Your task to perform on an android device: turn off location history Image 0: 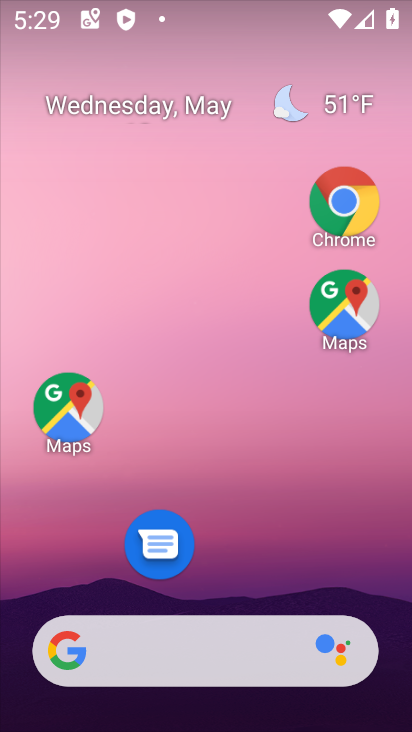
Step 0: drag from (274, 548) to (306, 141)
Your task to perform on an android device: turn off location history Image 1: 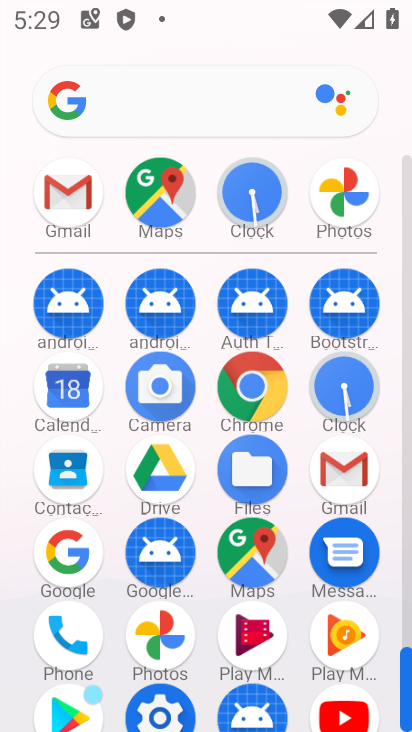
Step 1: click (159, 712)
Your task to perform on an android device: turn off location history Image 2: 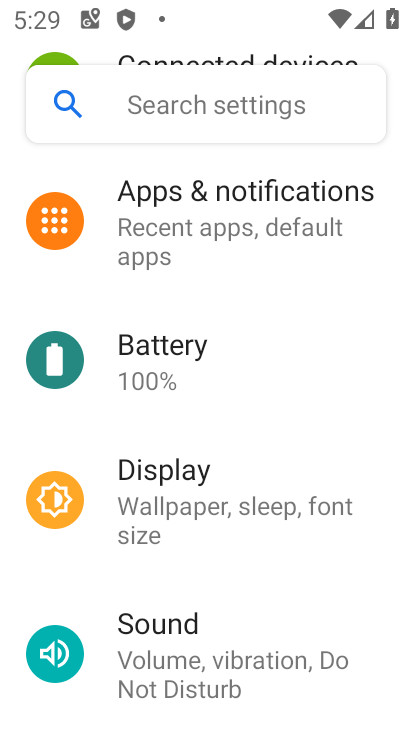
Step 2: drag from (222, 313) to (232, 547)
Your task to perform on an android device: turn off location history Image 3: 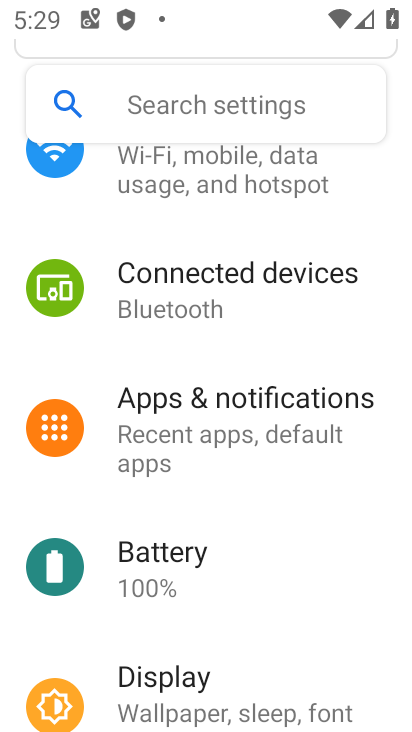
Step 3: drag from (223, 351) to (221, 564)
Your task to perform on an android device: turn off location history Image 4: 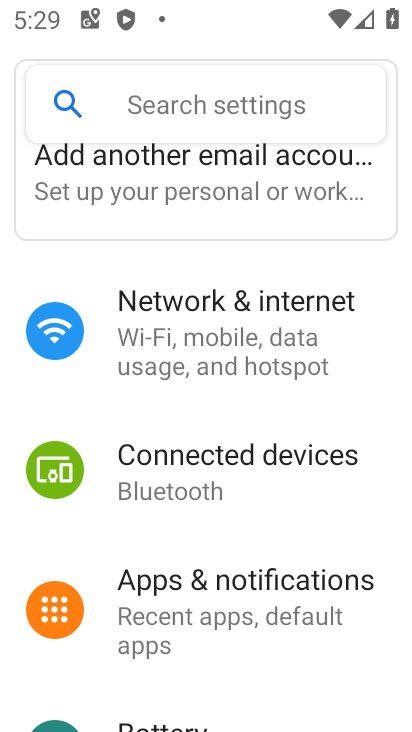
Step 4: drag from (207, 606) to (207, 252)
Your task to perform on an android device: turn off location history Image 5: 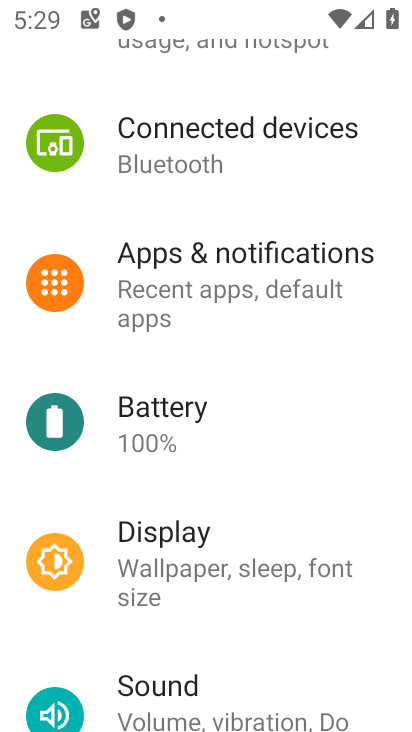
Step 5: drag from (195, 593) to (205, 189)
Your task to perform on an android device: turn off location history Image 6: 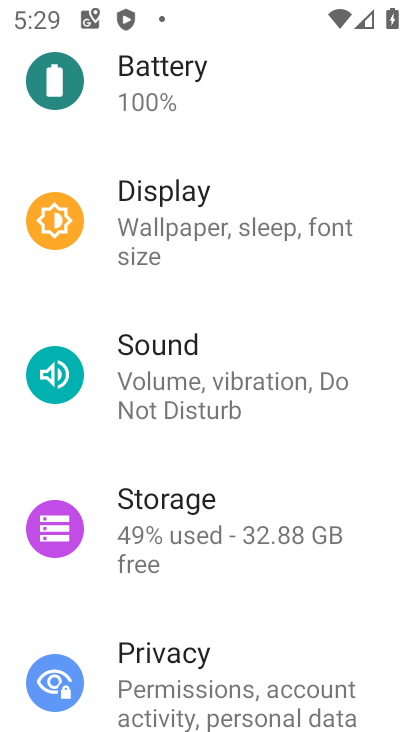
Step 6: drag from (180, 579) to (184, 288)
Your task to perform on an android device: turn off location history Image 7: 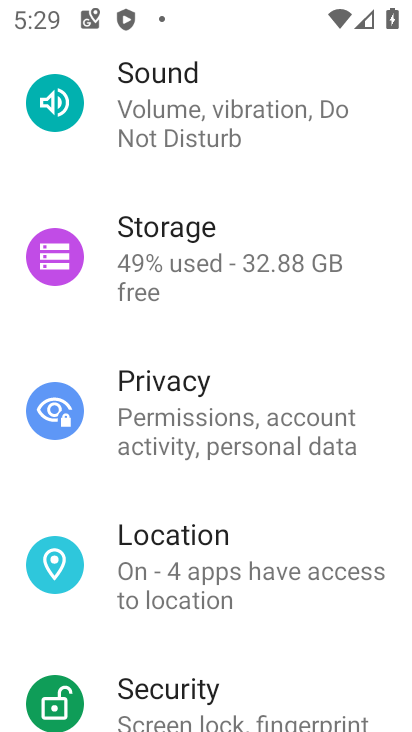
Step 7: drag from (210, 633) to (216, 261)
Your task to perform on an android device: turn off location history Image 8: 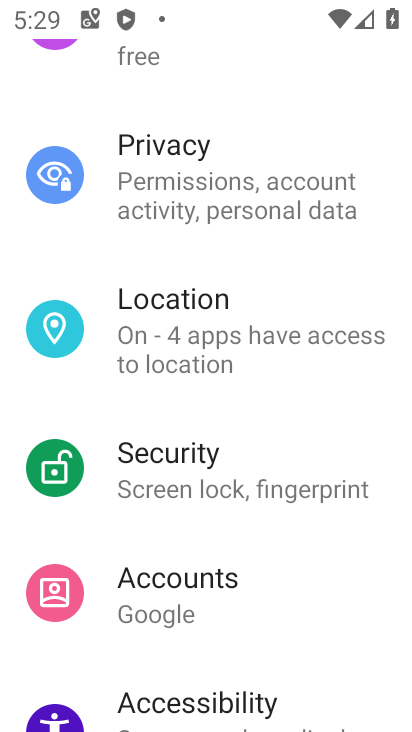
Step 8: click (155, 324)
Your task to perform on an android device: turn off location history Image 9: 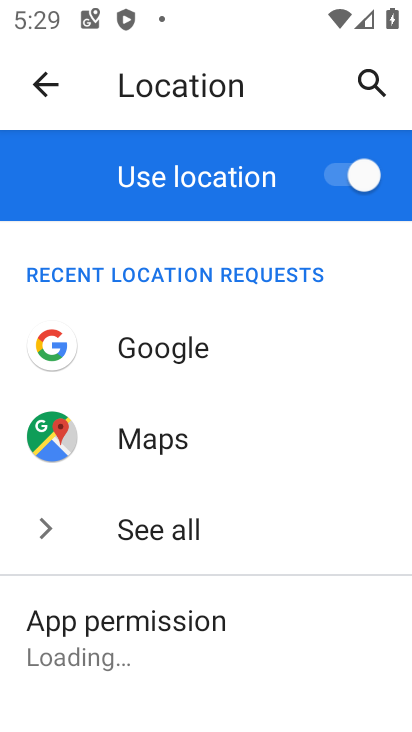
Step 9: drag from (159, 638) to (193, 308)
Your task to perform on an android device: turn off location history Image 10: 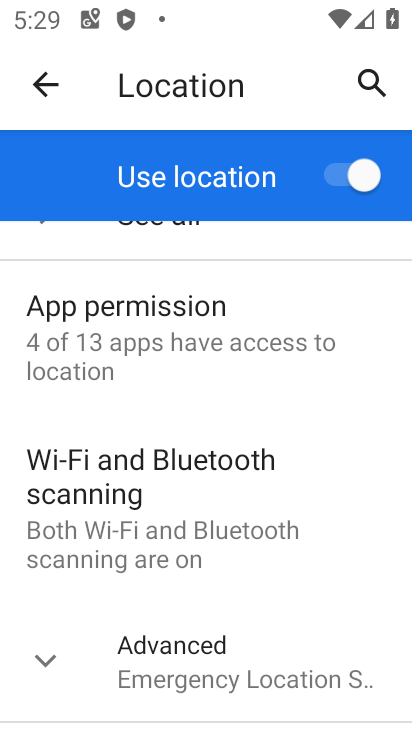
Step 10: click (167, 670)
Your task to perform on an android device: turn off location history Image 11: 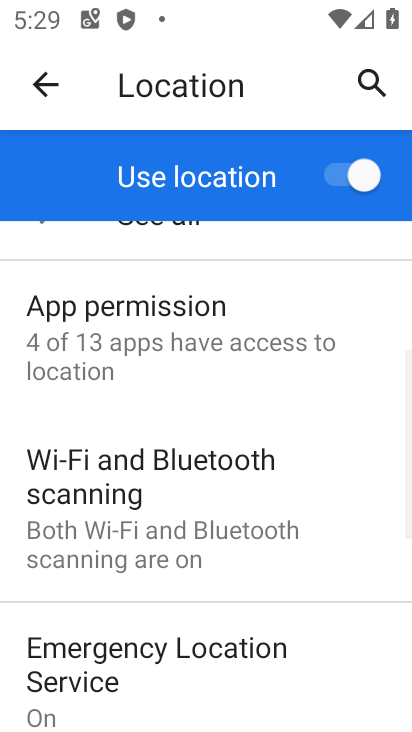
Step 11: drag from (161, 687) to (234, 250)
Your task to perform on an android device: turn off location history Image 12: 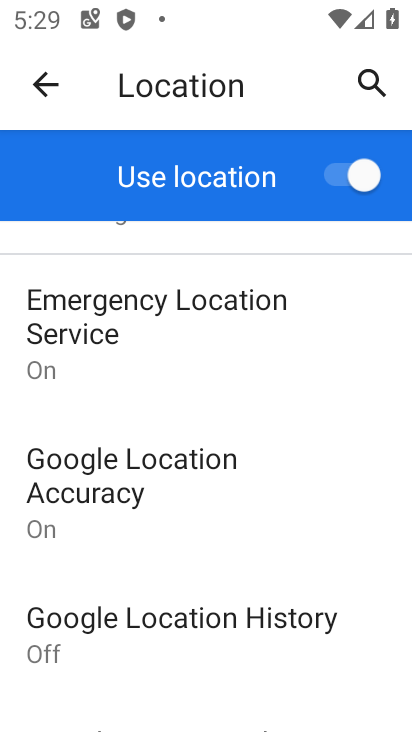
Step 12: click (183, 638)
Your task to perform on an android device: turn off location history Image 13: 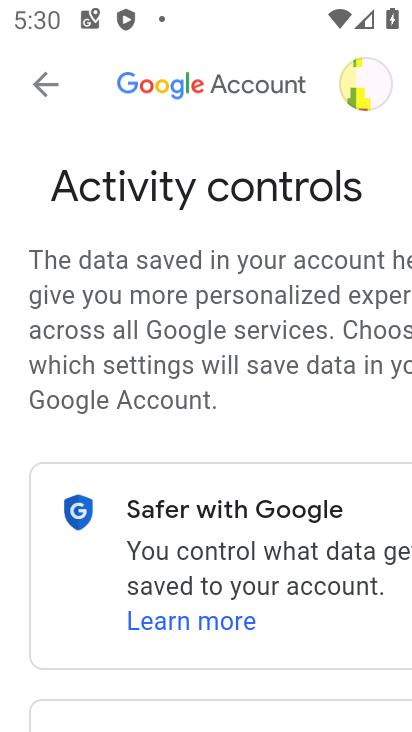
Step 13: drag from (242, 566) to (225, 208)
Your task to perform on an android device: turn off location history Image 14: 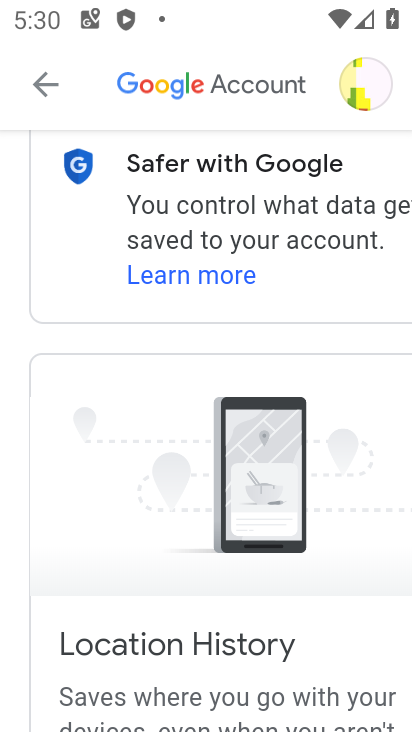
Step 14: drag from (240, 423) to (255, 298)
Your task to perform on an android device: turn off location history Image 15: 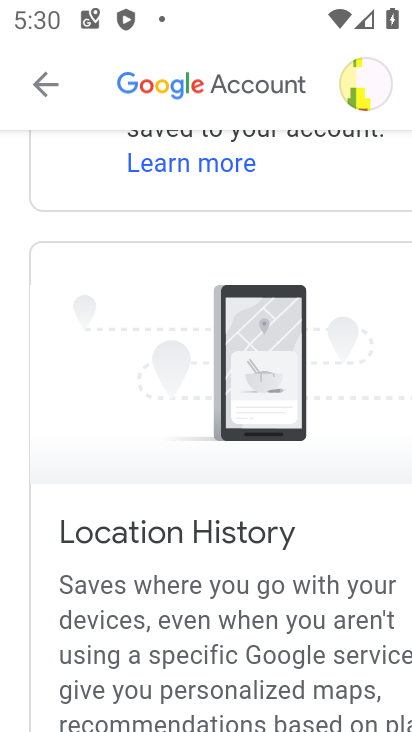
Step 15: drag from (224, 628) to (199, 267)
Your task to perform on an android device: turn off location history Image 16: 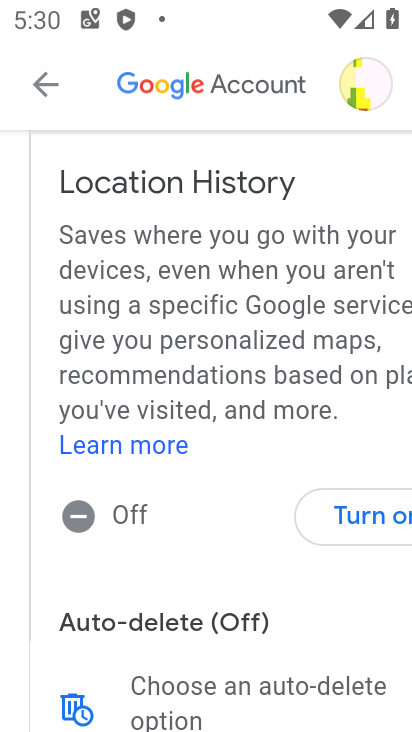
Step 16: click (350, 527)
Your task to perform on an android device: turn off location history Image 17: 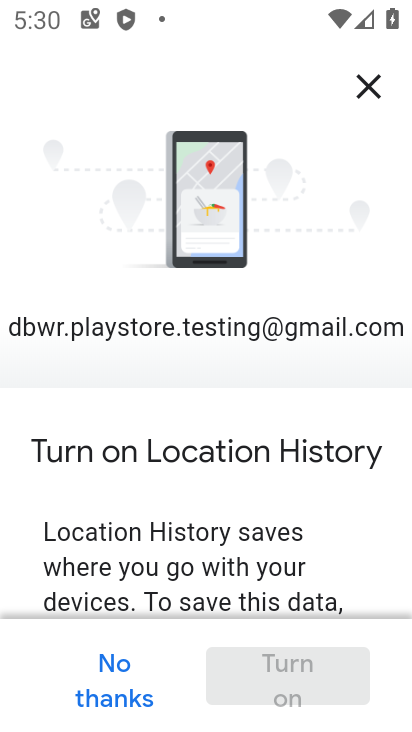
Step 17: drag from (215, 578) to (238, 230)
Your task to perform on an android device: turn off location history Image 18: 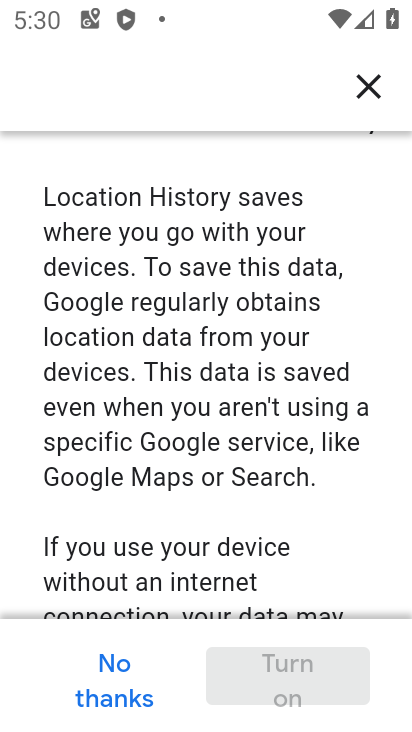
Step 18: drag from (248, 525) to (225, 215)
Your task to perform on an android device: turn off location history Image 19: 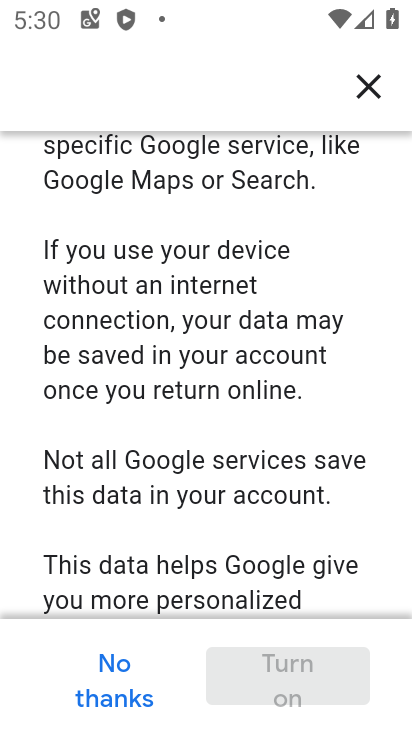
Step 19: drag from (235, 529) to (223, 227)
Your task to perform on an android device: turn off location history Image 20: 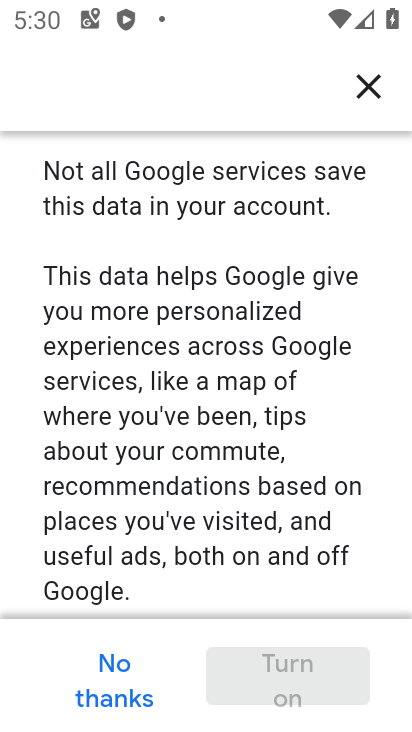
Step 20: drag from (256, 558) to (239, 310)
Your task to perform on an android device: turn off location history Image 21: 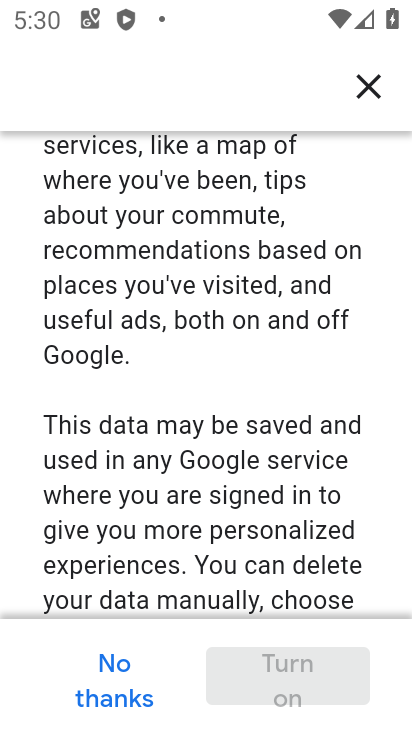
Step 21: drag from (269, 561) to (211, 255)
Your task to perform on an android device: turn off location history Image 22: 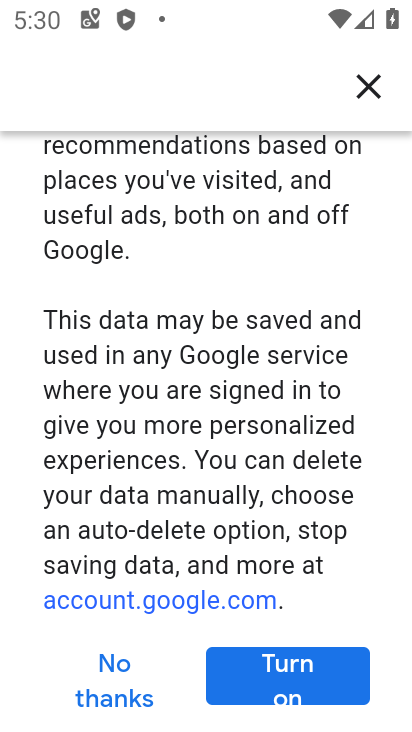
Step 22: click (283, 672)
Your task to perform on an android device: turn off location history Image 23: 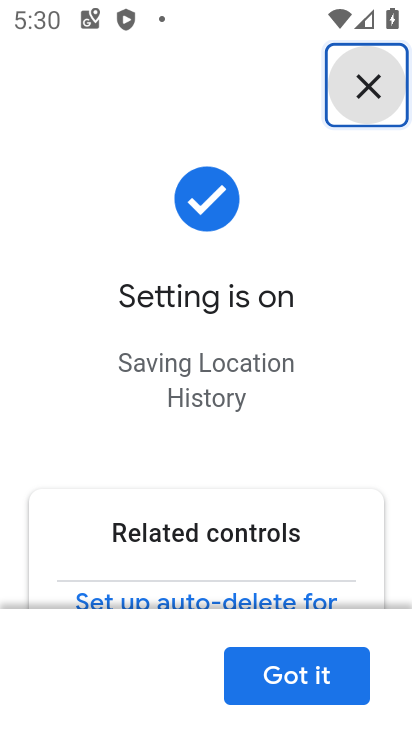
Step 23: click (278, 672)
Your task to perform on an android device: turn off location history Image 24: 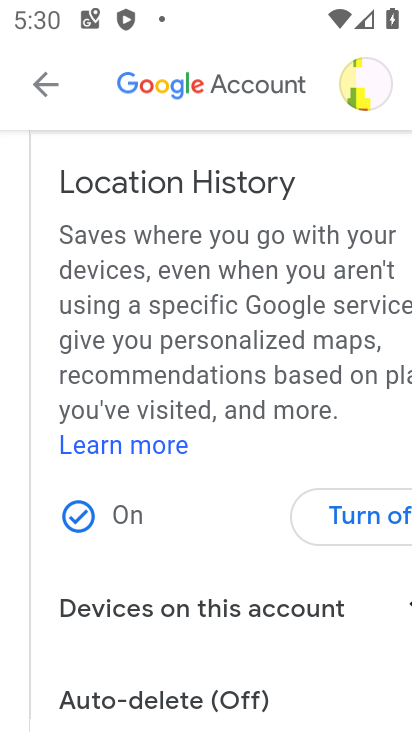
Step 24: task complete